Your task to perform on an android device: toggle translation in the chrome app Image 0: 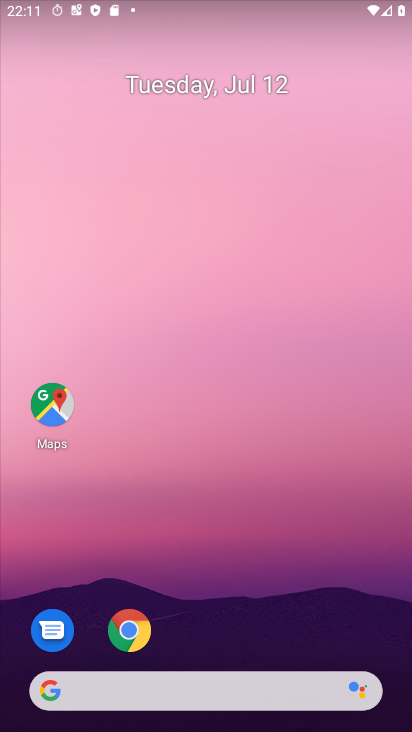
Step 0: click (140, 619)
Your task to perform on an android device: toggle translation in the chrome app Image 1: 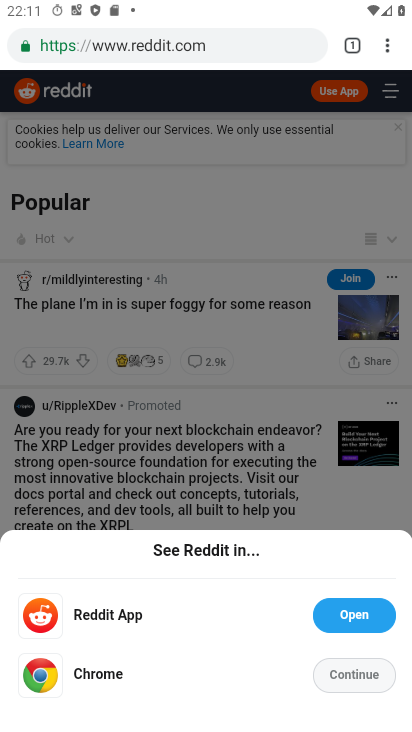
Step 1: drag from (384, 53) to (236, 535)
Your task to perform on an android device: toggle translation in the chrome app Image 2: 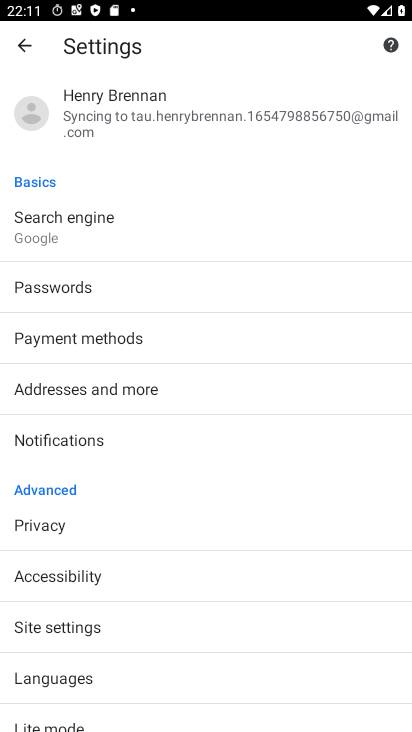
Step 2: click (52, 693)
Your task to perform on an android device: toggle translation in the chrome app Image 3: 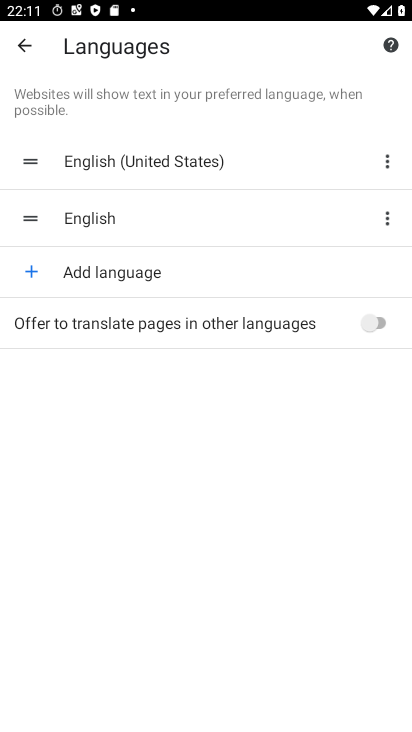
Step 3: click (372, 319)
Your task to perform on an android device: toggle translation in the chrome app Image 4: 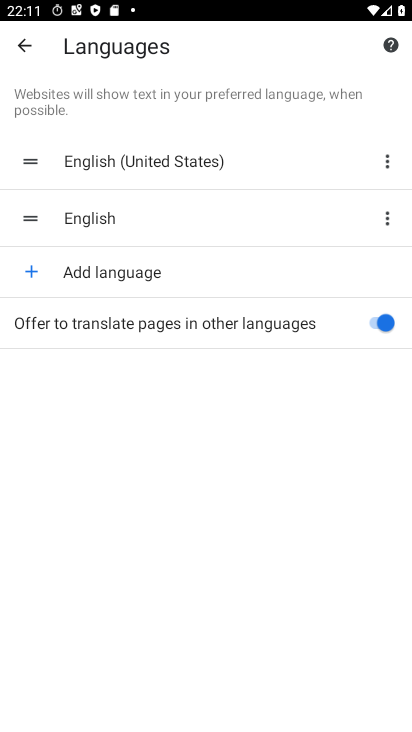
Step 4: task complete